Your task to perform on an android device: see tabs open on other devices in the chrome app Image 0: 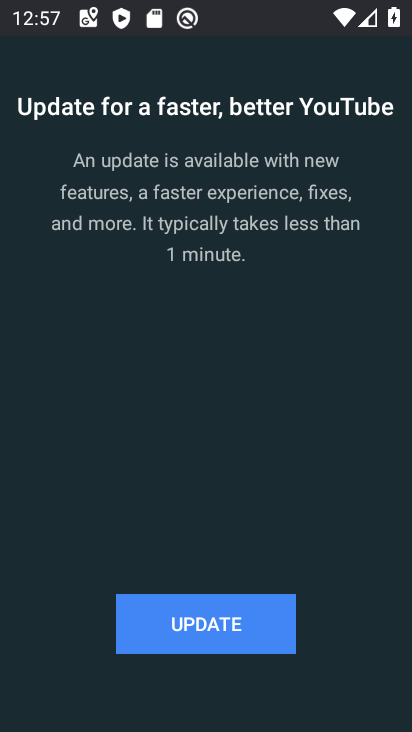
Step 0: press back button
Your task to perform on an android device: see tabs open on other devices in the chrome app Image 1: 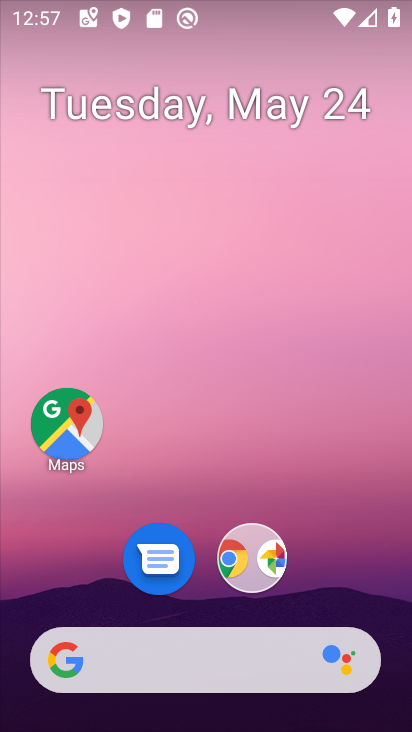
Step 1: drag from (283, 676) to (159, 29)
Your task to perform on an android device: see tabs open on other devices in the chrome app Image 2: 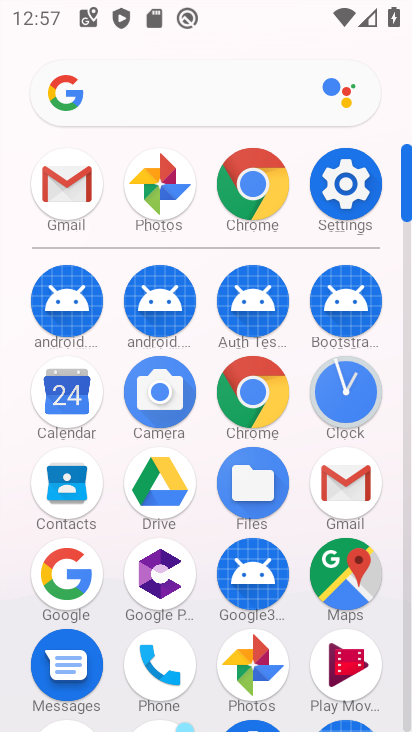
Step 2: click (334, 205)
Your task to perform on an android device: see tabs open on other devices in the chrome app Image 3: 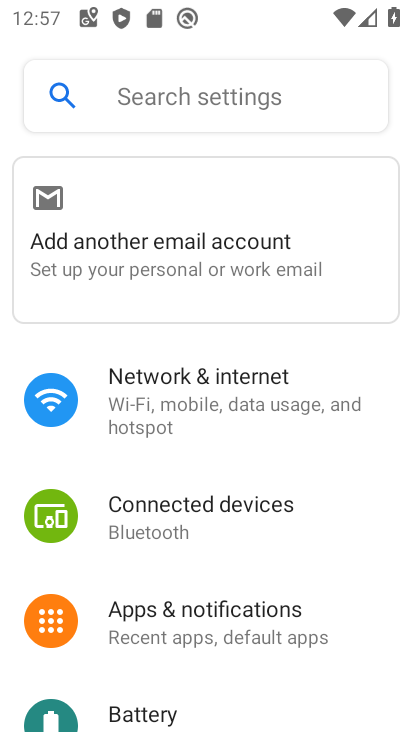
Step 3: press back button
Your task to perform on an android device: see tabs open on other devices in the chrome app Image 4: 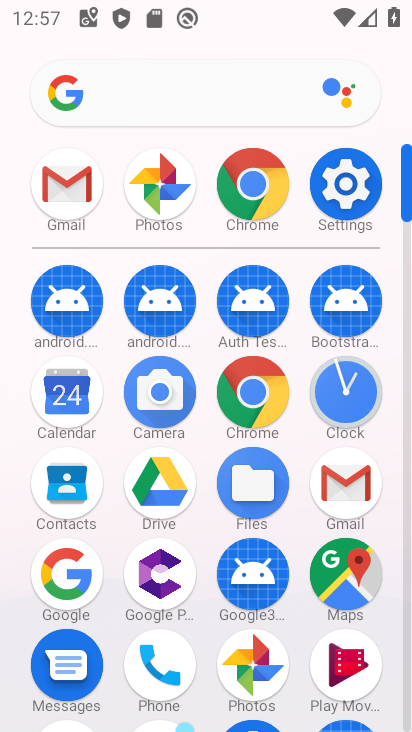
Step 4: press home button
Your task to perform on an android device: see tabs open on other devices in the chrome app Image 5: 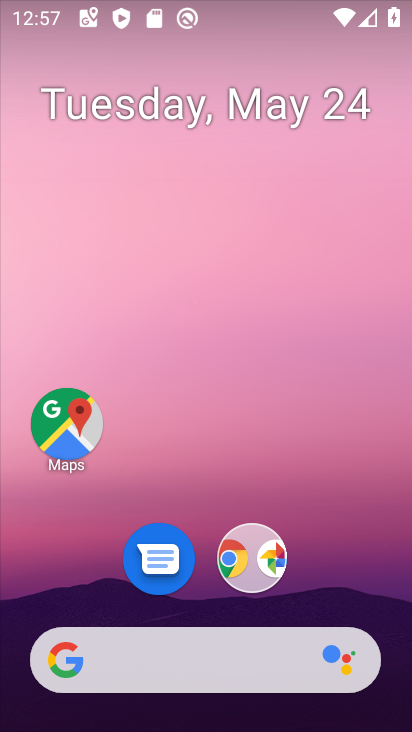
Step 5: click (202, 51)
Your task to perform on an android device: see tabs open on other devices in the chrome app Image 6: 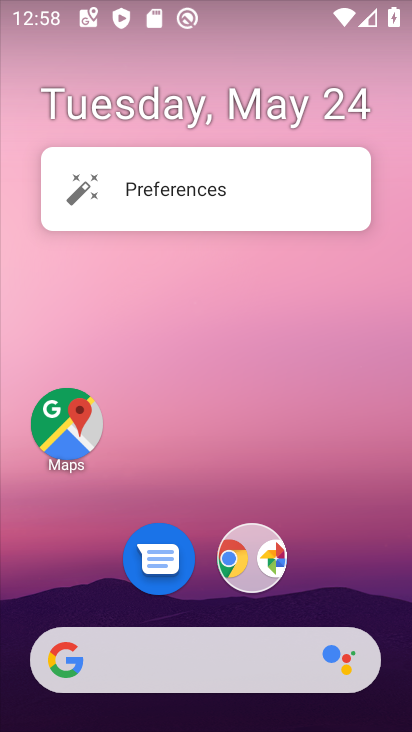
Step 6: drag from (261, 484) to (151, 24)
Your task to perform on an android device: see tabs open on other devices in the chrome app Image 7: 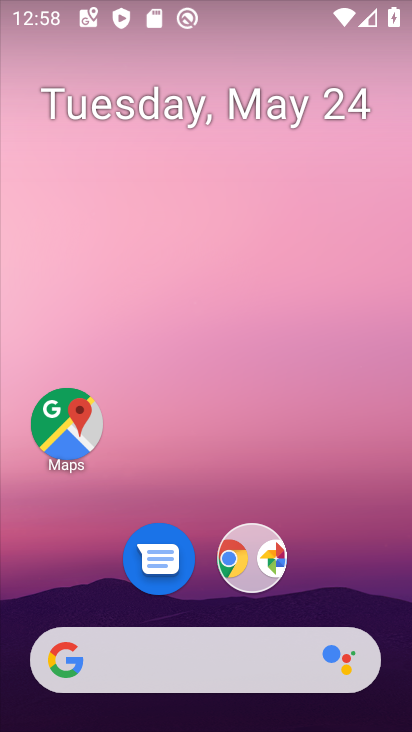
Step 7: drag from (296, 573) to (222, 131)
Your task to perform on an android device: see tabs open on other devices in the chrome app Image 8: 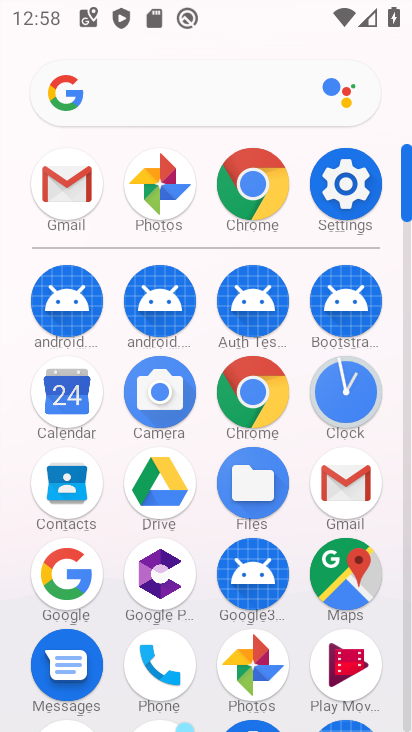
Step 8: drag from (291, 514) to (135, 21)
Your task to perform on an android device: see tabs open on other devices in the chrome app Image 9: 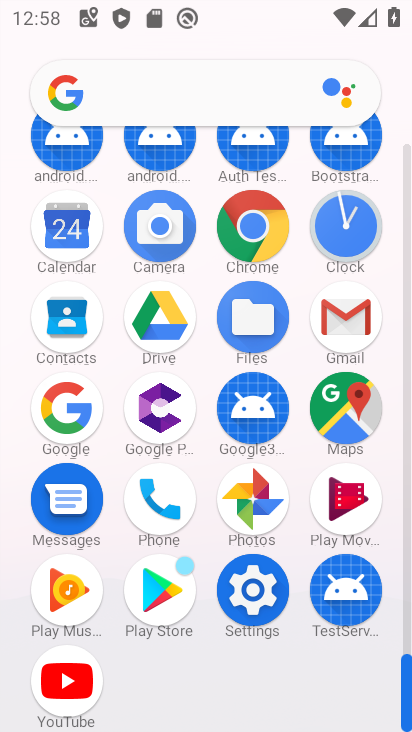
Step 9: click (259, 222)
Your task to perform on an android device: see tabs open on other devices in the chrome app Image 10: 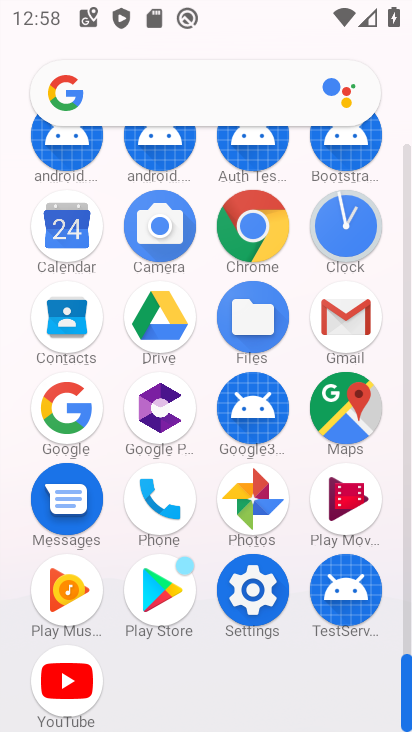
Step 10: click (258, 225)
Your task to perform on an android device: see tabs open on other devices in the chrome app Image 11: 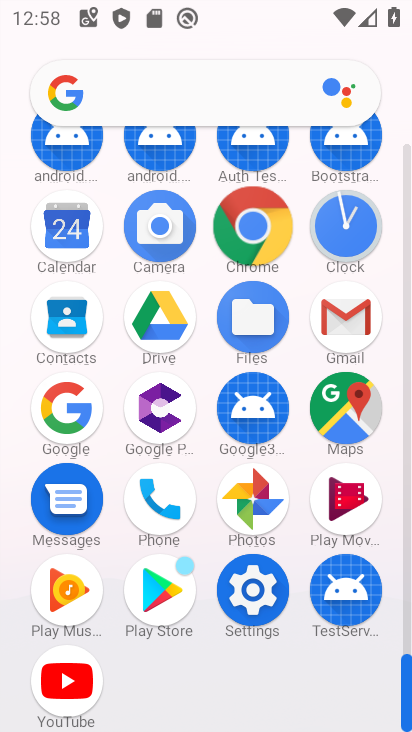
Step 11: click (263, 233)
Your task to perform on an android device: see tabs open on other devices in the chrome app Image 12: 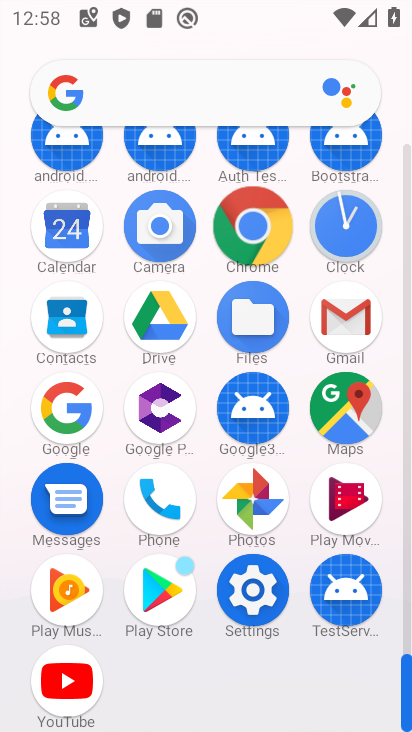
Step 12: click (262, 232)
Your task to perform on an android device: see tabs open on other devices in the chrome app Image 13: 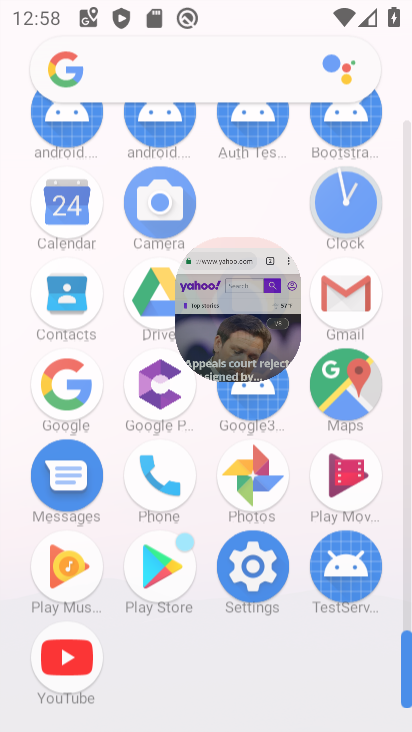
Step 13: click (263, 228)
Your task to perform on an android device: see tabs open on other devices in the chrome app Image 14: 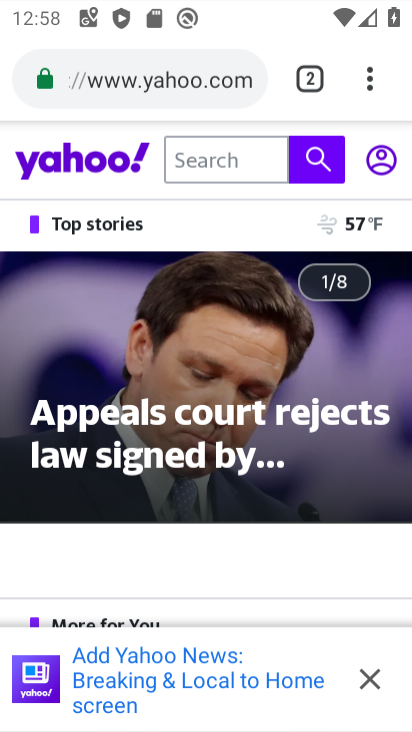
Step 14: click (263, 230)
Your task to perform on an android device: see tabs open on other devices in the chrome app Image 15: 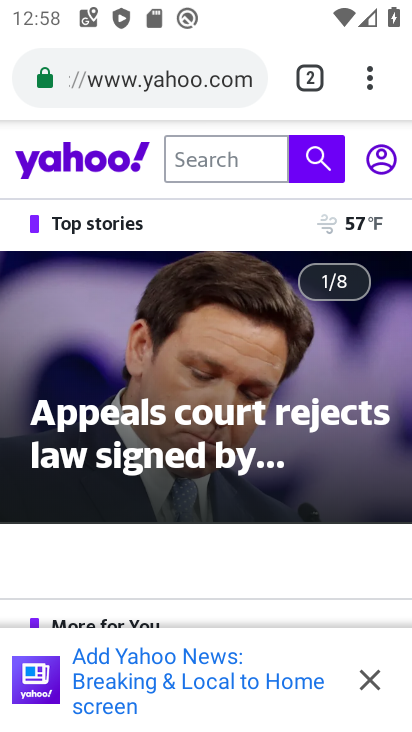
Step 15: drag from (370, 77) to (79, 259)
Your task to perform on an android device: see tabs open on other devices in the chrome app Image 16: 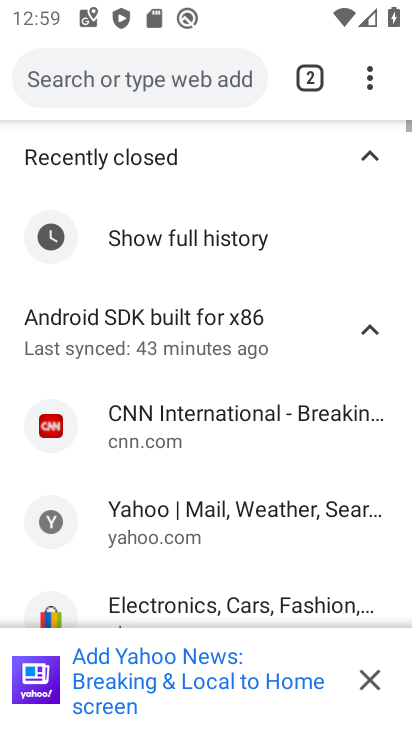
Step 16: click (81, 257)
Your task to perform on an android device: see tabs open on other devices in the chrome app Image 17: 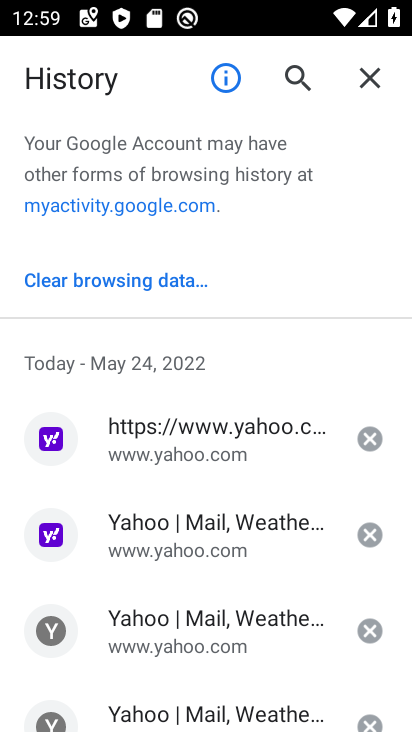
Step 17: task complete